Your task to perform on an android device: Open location settings Image 0: 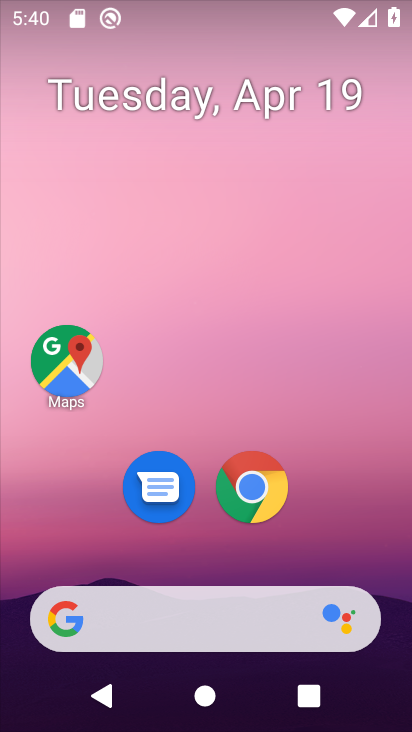
Step 0: drag from (206, 555) to (206, 72)
Your task to perform on an android device: Open location settings Image 1: 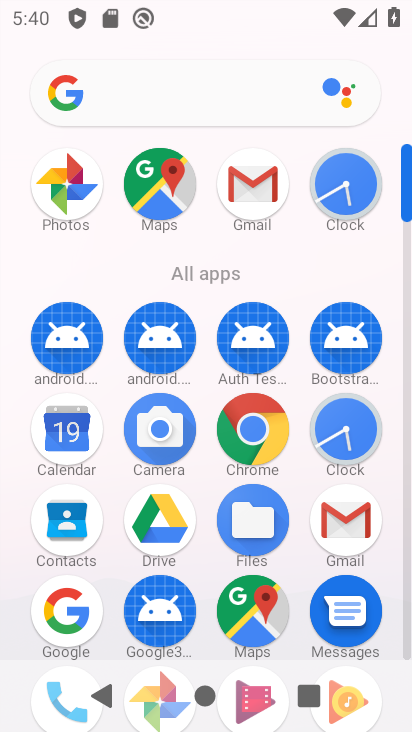
Step 1: drag from (195, 551) to (213, 103)
Your task to perform on an android device: Open location settings Image 2: 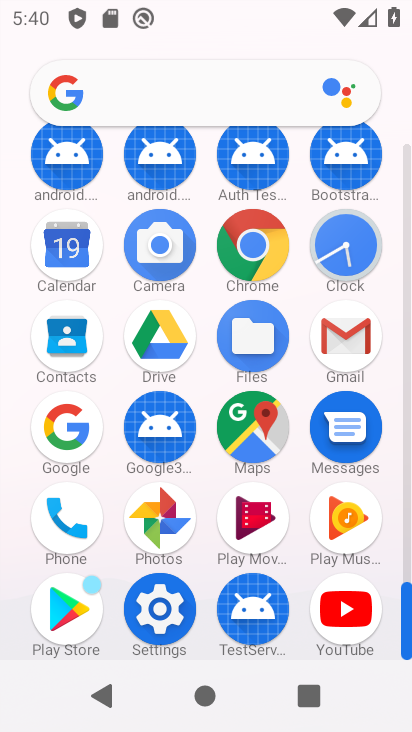
Step 2: drag from (215, 554) to (215, 277)
Your task to perform on an android device: Open location settings Image 3: 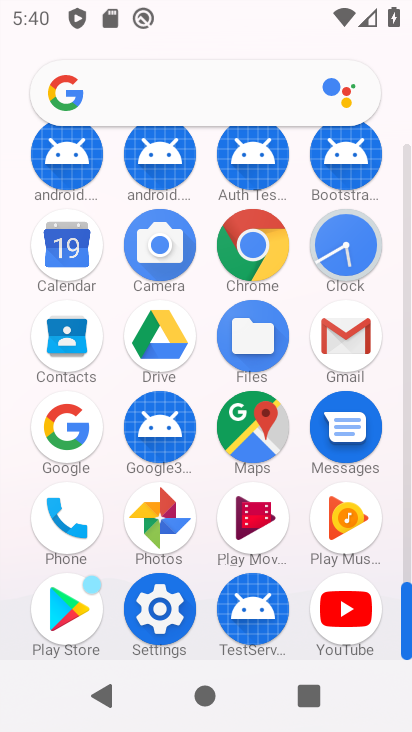
Step 3: click (163, 596)
Your task to perform on an android device: Open location settings Image 4: 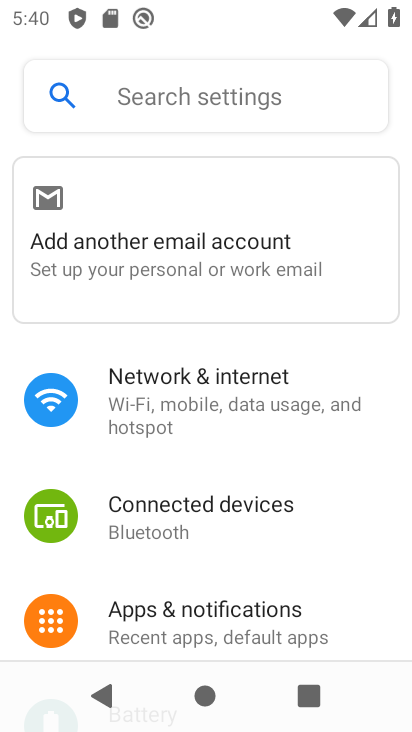
Step 4: drag from (187, 577) to (201, 97)
Your task to perform on an android device: Open location settings Image 5: 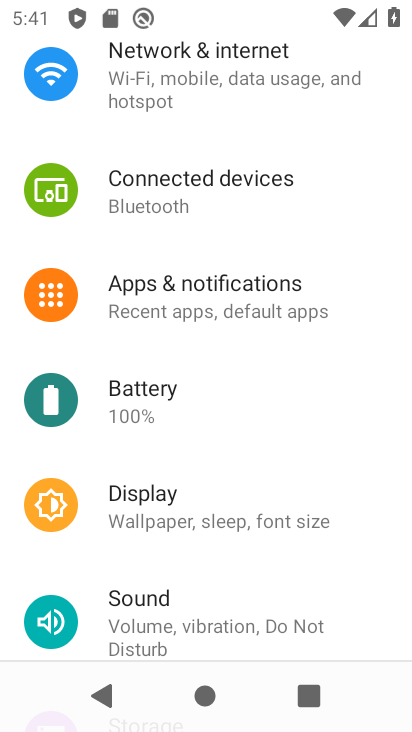
Step 5: drag from (224, 533) to (257, 259)
Your task to perform on an android device: Open location settings Image 6: 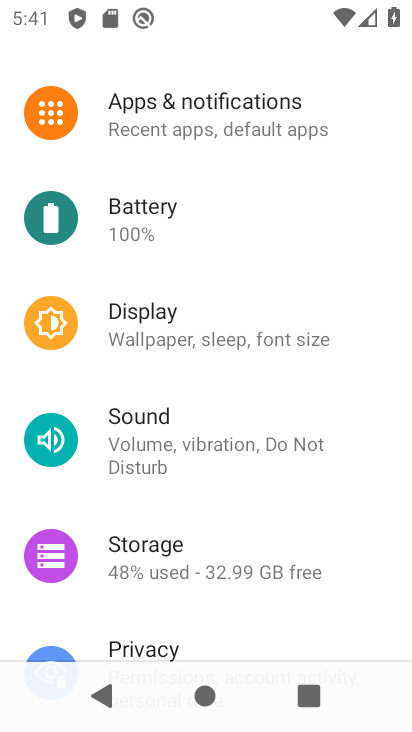
Step 6: drag from (201, 596) to (229, 117)
Your task to perform on an android device: Open location settings Image 7: 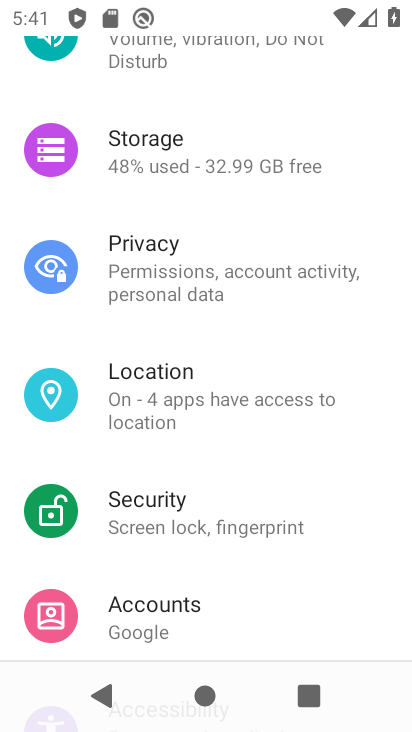
Step 7: click (182, 378)
Your task to perform on an android device: Open location settings Image 8: 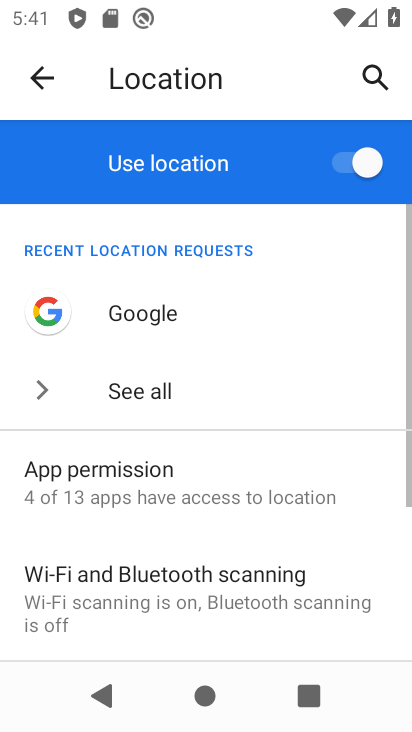
Step 8: drag from (197, 544) to (227, 148)
Your task to perform on an android device: Open location settings Image 9: 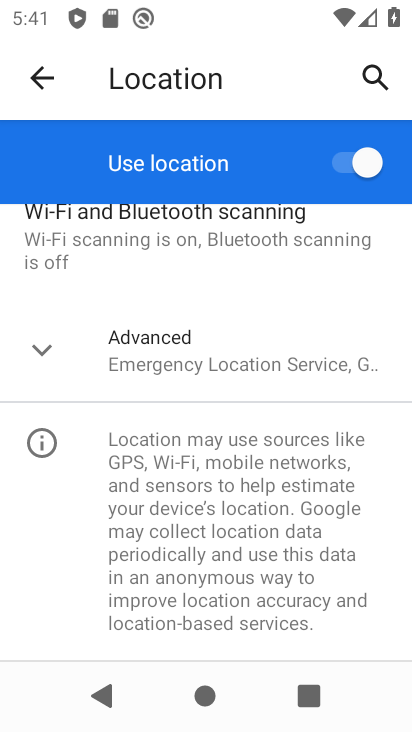
Step 9: click (43, 341)
Your task to perform on an android device: Open location settings Image 10: 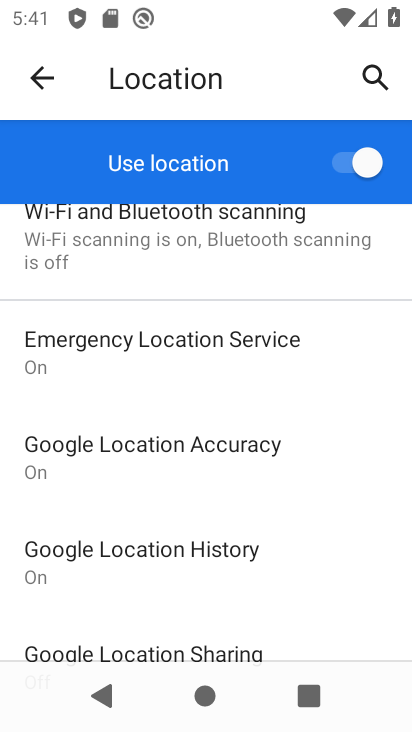
Step 10: task complete